Your task to perform on an android device: open a bookmark in the chrome app Image 0: 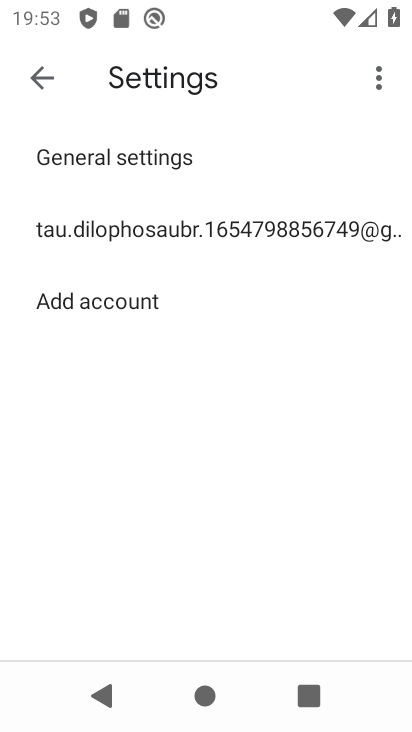
Step 0: press home button
Your task to perform on an android device: open a bookmark in the chrome app Image 1: 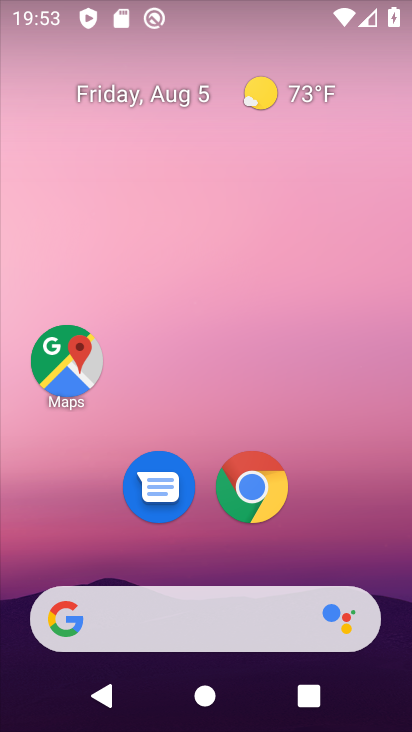
Step 1: click (256, 496)
Your task to perform on an android device: open a bookmark in the chrome app Image 2: 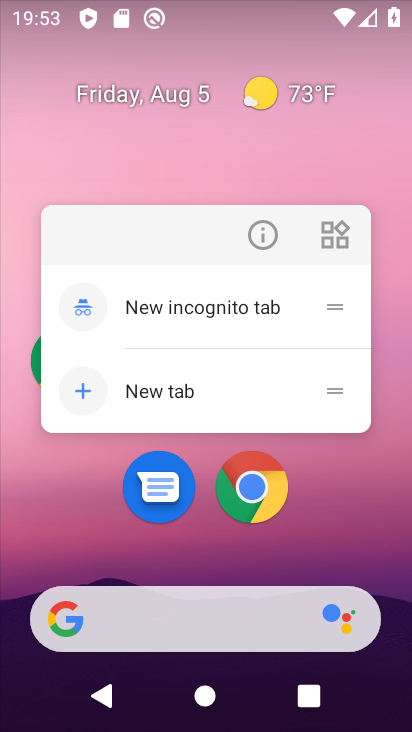
Step 2: click (255, 486)
Your task to perform on an android device: open a bookmark in the chrome app Image 3: 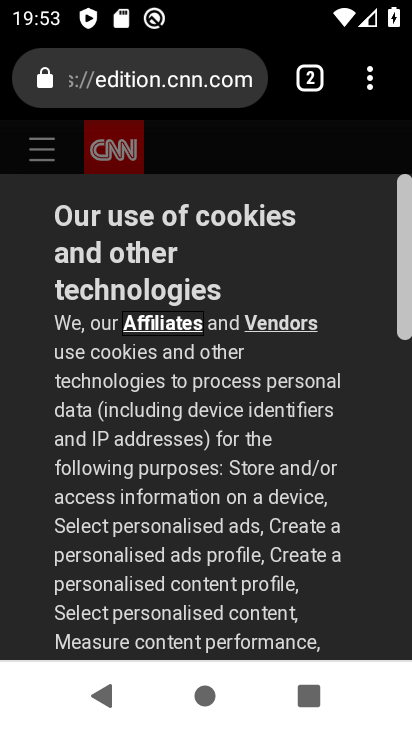
Step 3: drag from (369, 79) to (251, 302)
Your task to perform on an android device: open a bookmark in the chrome app Image 4: 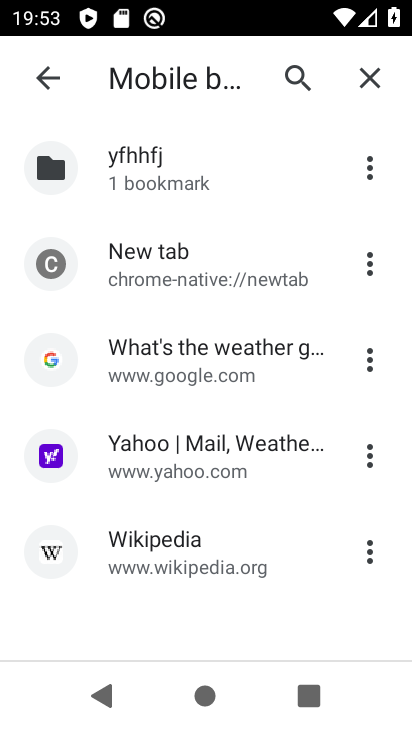
Step 4: click (196, 273)
Your task to perform on an android device: open a bookmark in the chrome app Image 5: 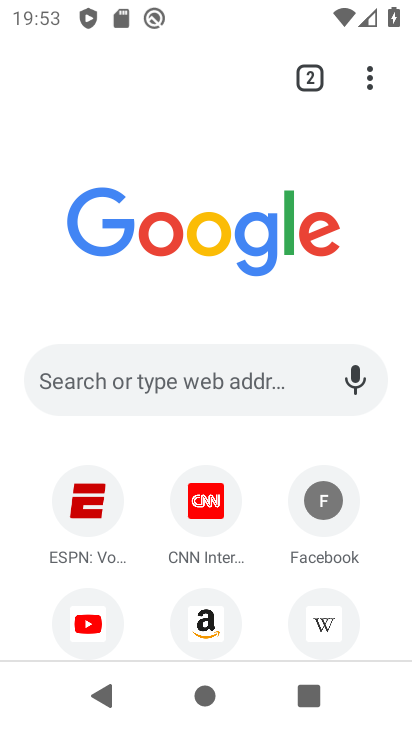
Step 5: task complete